Your task to perform on an android device: What's the weather going to be this weekend? Image 0: 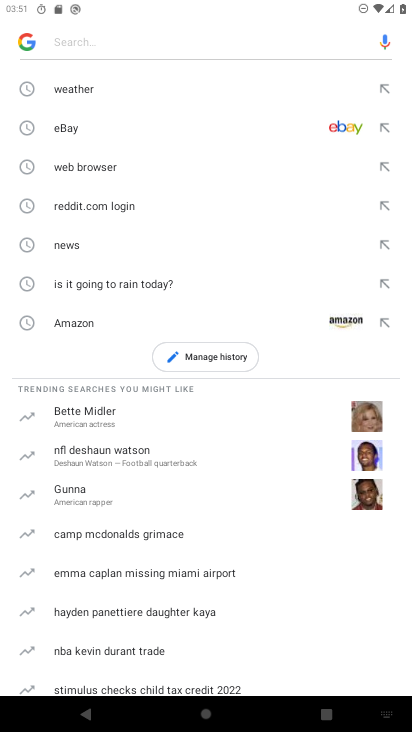
Step 0: press home button
Your task to perform on an android device: What's the weather going to be this weekend? Image 1: 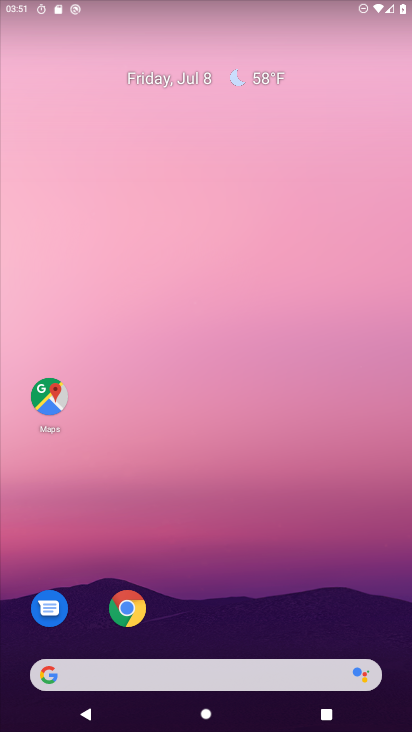
Step 1: drag from (220, 603) to (205, 253)
Your task to perform on an android device: What's the weather going to be this weekend? Image 2: 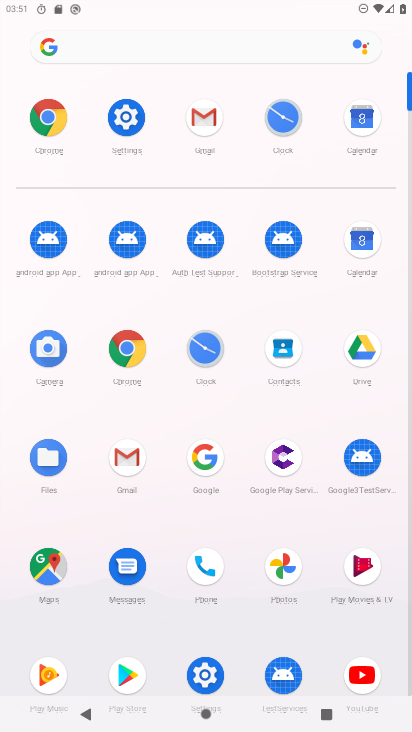
Step 2: click (208, 453)
Your task to perform on an android device: What's the weather going to be this weekend? Image 3: 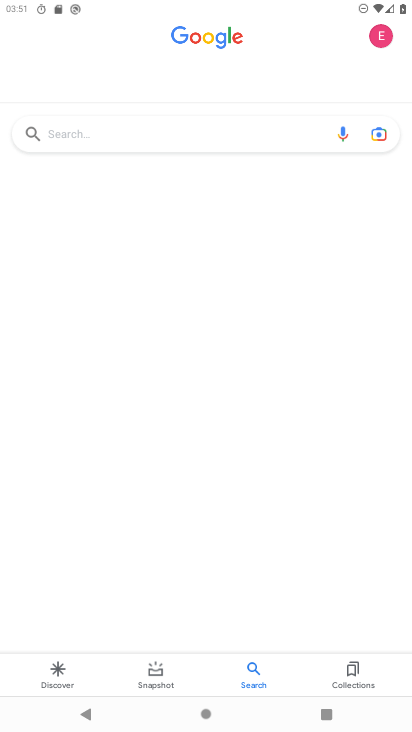
Step 3: click (194, 124)
Your task to perform on an android device: What's the weather going to be this weekend? Image 4: 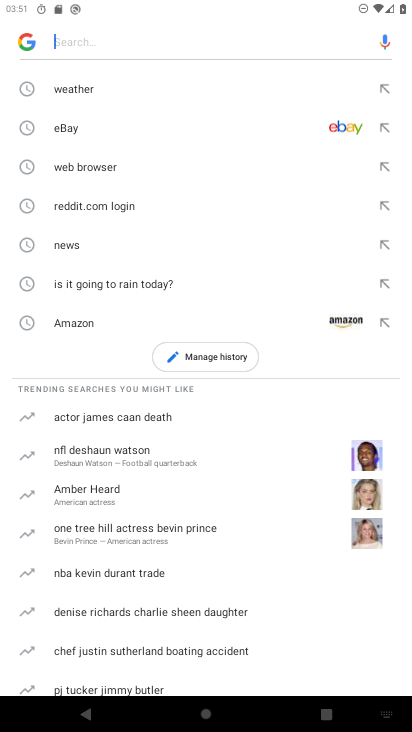
Step 4: click (69, 86)
Your task to perform on an android device: What's the weather going to be this weekend? Image 5: 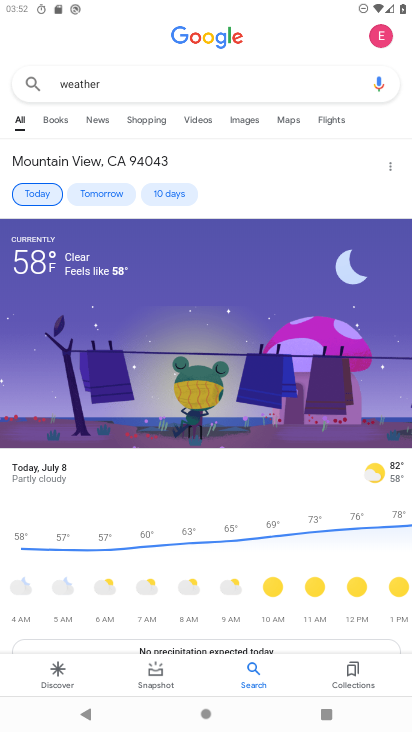
Step 5: click (168, 189)
Your task to perform on an android device: What's the weather going to be this weekend? Image 6: 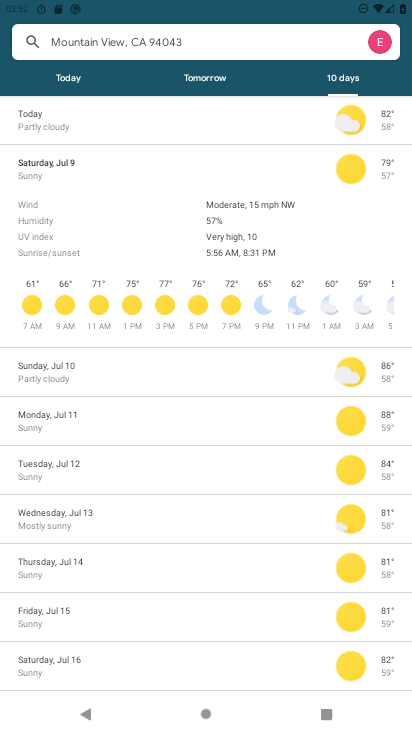
Step 6: task complete